Your task to perform on an android device: Play the last video I watched on Youtube Image 0: 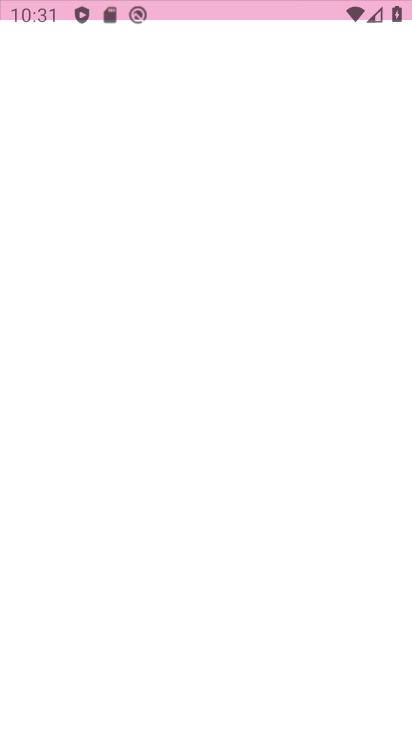
Step 0: click (168, 505)
Your task to perform on an android device: Play the last video I watched on Youtube Image 1: 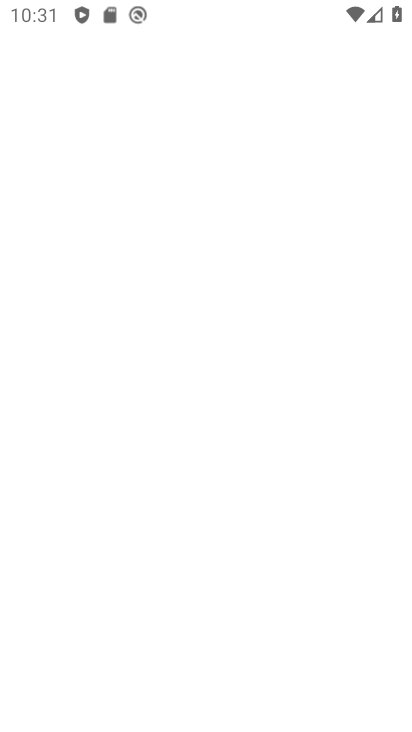
Step 1: drag from (374, 428) to (320, 227)
Your task to perform on an android device: Play the last video I watched on Youtube Image 2: 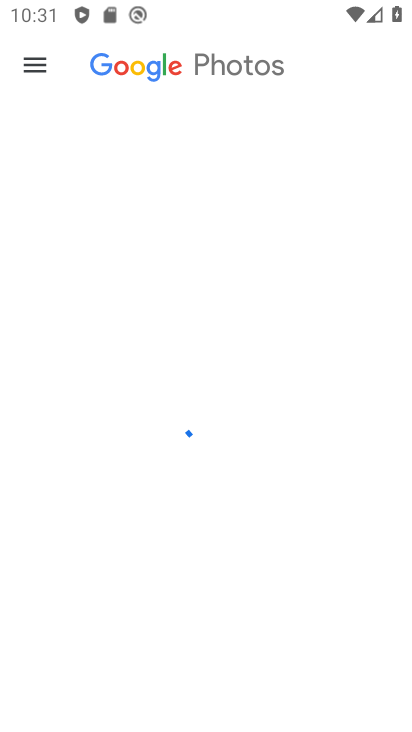
Step 2: press home button
Your task to perform on an android device: Play the last video I watched on Youtube Image 3: 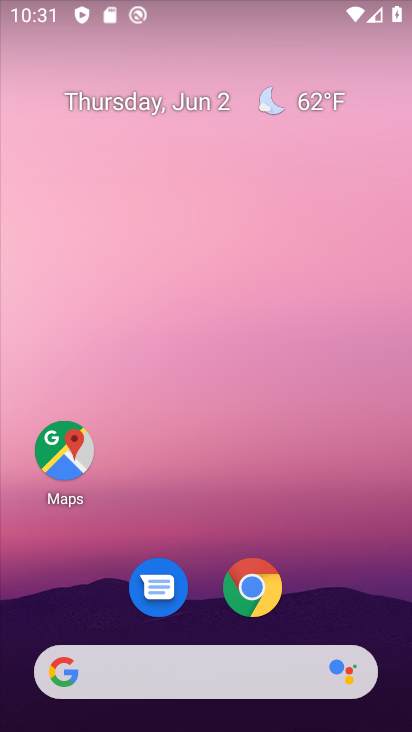
Step 3: drag from (363, 471) to (374, 59)
Your task to perform on an android device: Play the last video I watched on Youtube Image 4: 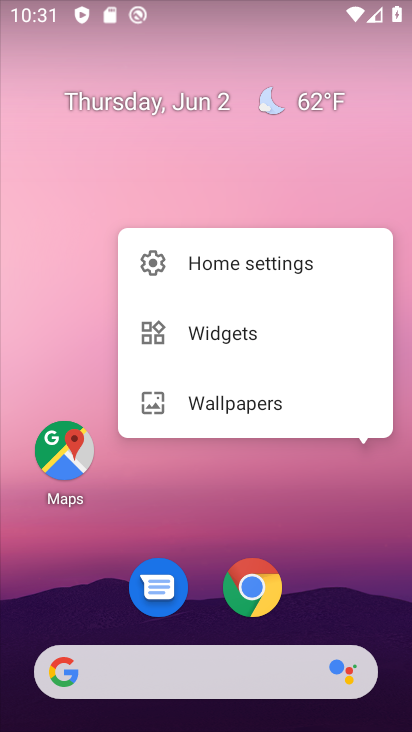
Step 4: drag from (373, 574) to (337, 75)
Your task to perform on an android device: Play the last video I watched on Youtube Image 5: 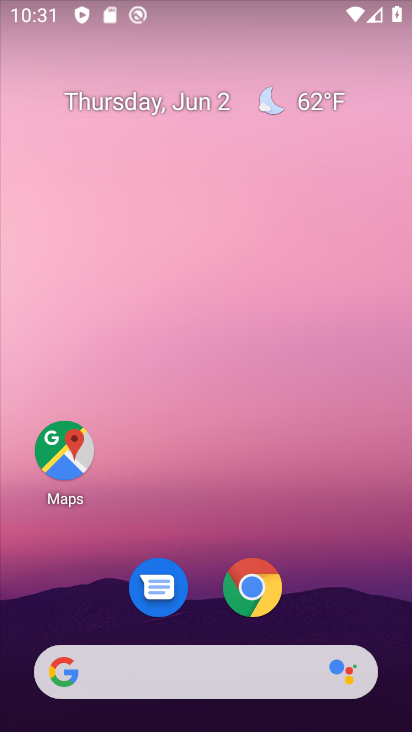
Step 5: drag from (351, 571) to (246, 4)
Your task to perform on an android device: Play the last video I watched on Youtube Image 6: 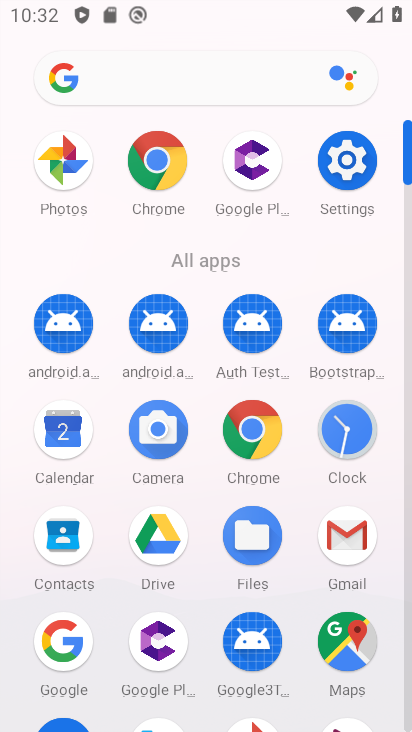
Step 6: drag from (282, 614) to (297, 282)
Your task to perform on an android device: Play the last video I watched on Youtube Image 7: 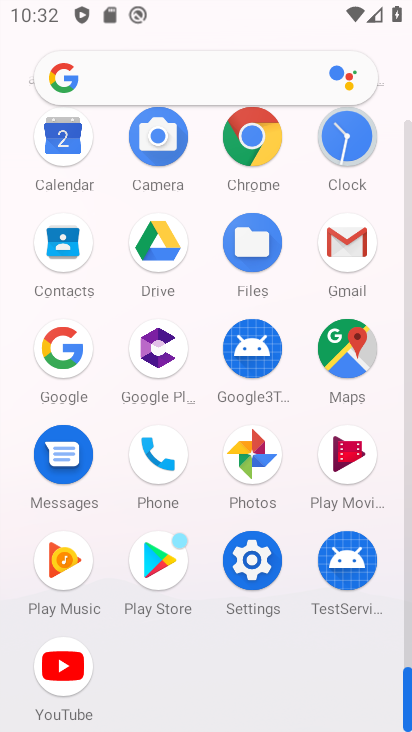
Step 7: drag from (223, 693) to (268, 380)
Your task to perform on an android device: Play the last video I watched on Youtube Image 8: 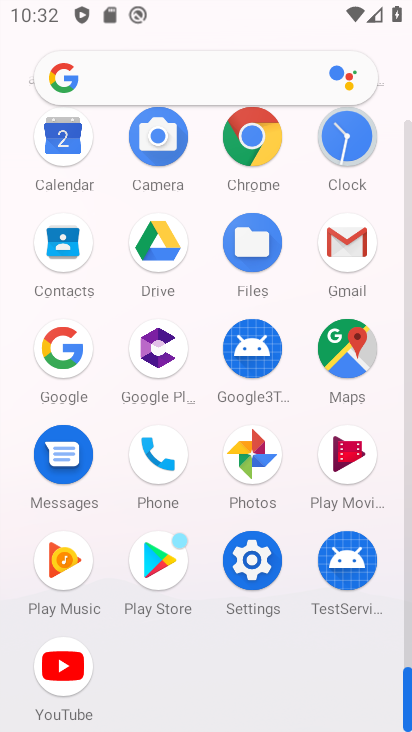
Step 8: click (71, 681)
Your task to perform on an android device: Play the last video I watched on Youtube Image 9: 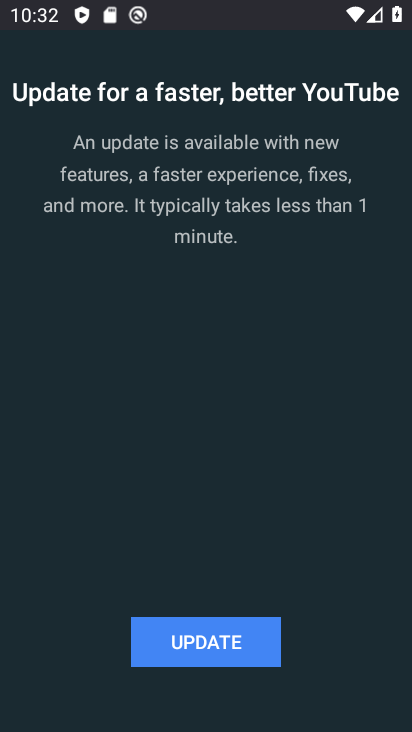
Step 9: click (221, 635)
Your task to perform on an android device: Play the last video I watched on Youtube Image 10: 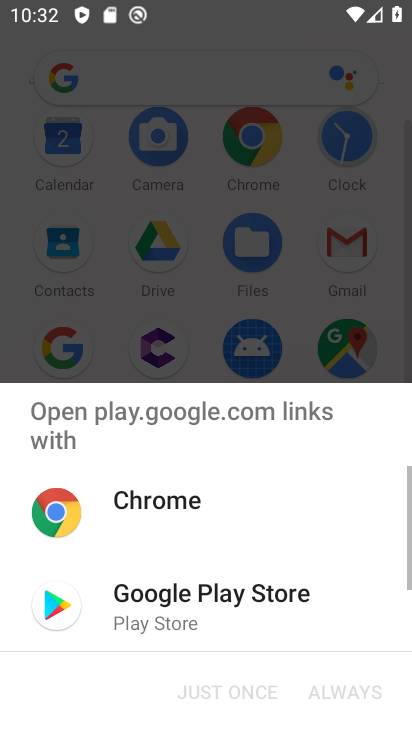
Step 10: click (200, 623)
Your task to perform on an android device: Play the last video I watched on Youtube Image 11: 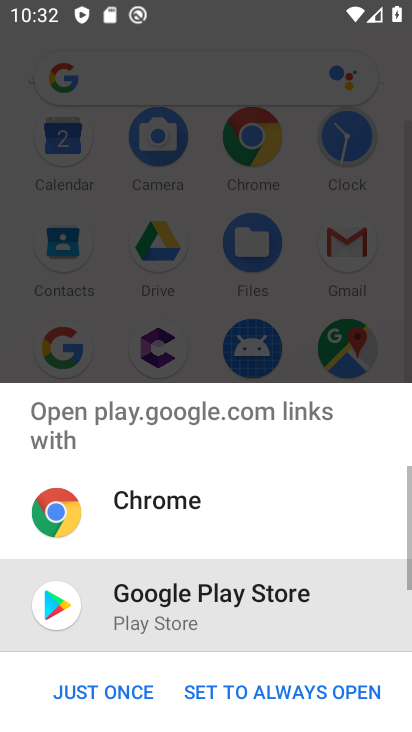
Step 11: click (78, 682)
Your task to perform on an android device: Play the last video I watched on Youtube Image 12: 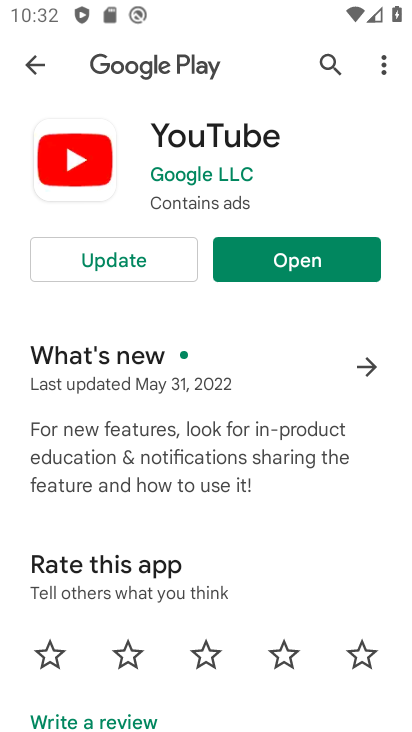
Step 12: click (139, 243)
Your task to perform on an android device: Play the last video I watched on Youtube Image 13: 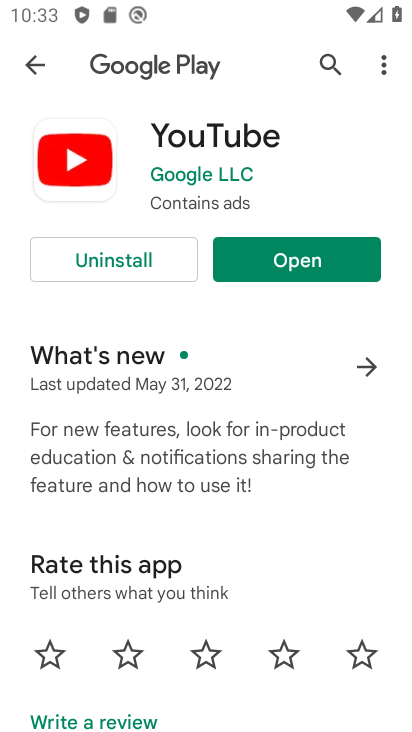
Step 13: click (327, 254)
Your task to perform on an android device: Play the last video I watched on Youtube Image 14: 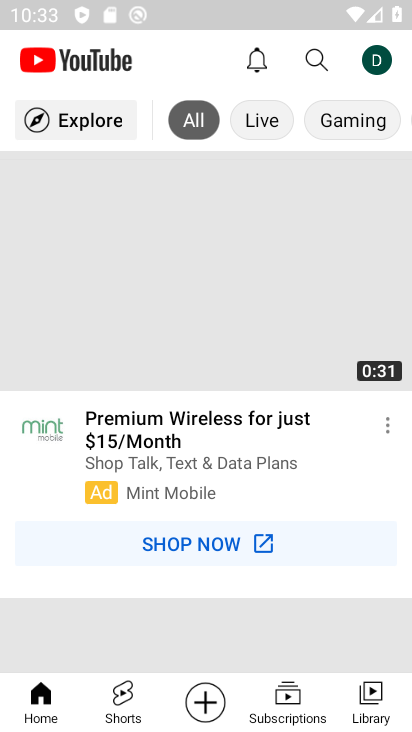
Step 14: click (362, 696)
Your task to perform on an android device: Play the last video I watched on Youtube Image 15: 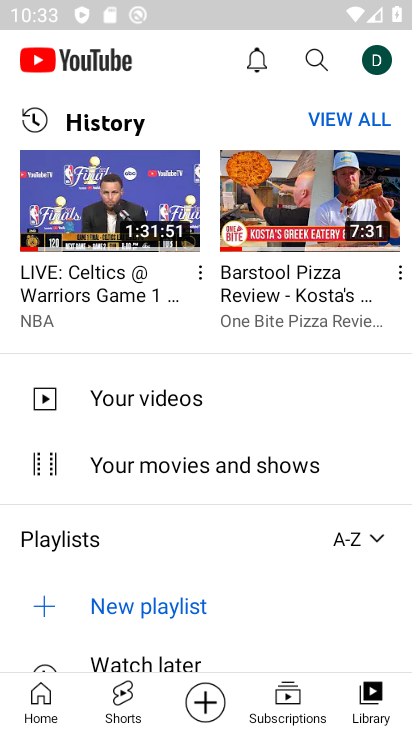
Step 15: task complete